Your task to perform on an android device: all mails in gmail Image 0: 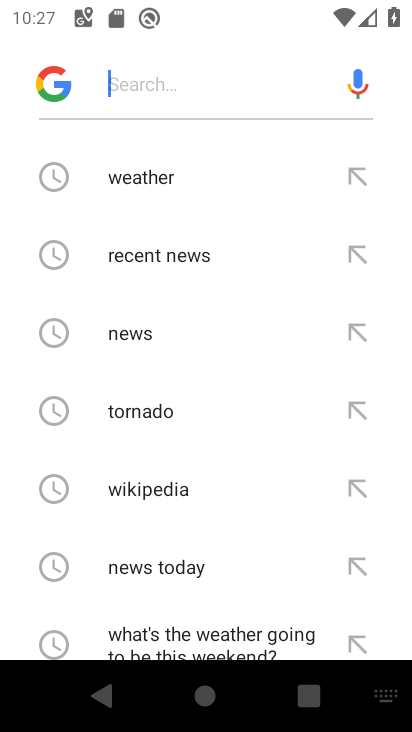
Step 0: press back button
Your task to perform on an android device: all mails in gmail Image 1: 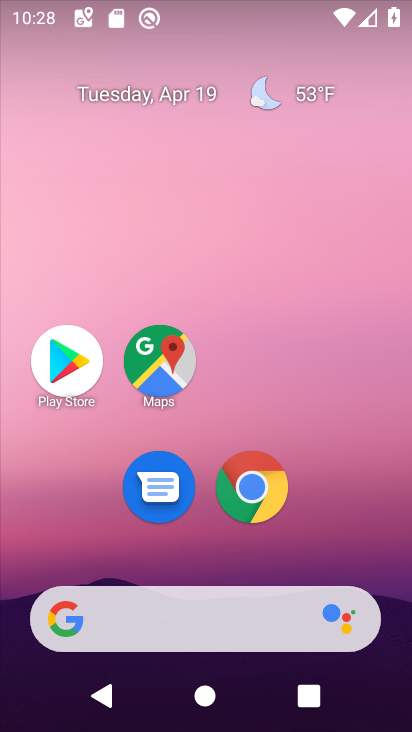
Step 1: drag from (391, 657) to (286, 16)
Your task to perform on an android device: all mails in gmail Image 2: 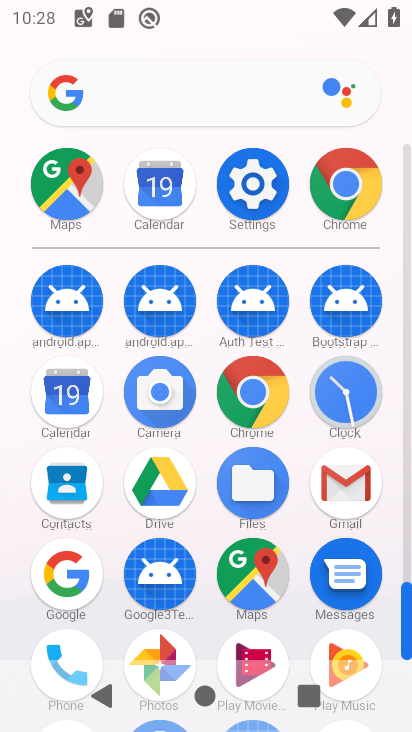
Step 2: drag from (9, 561) to (14, 325)
Your task to perform on an android device: all mails in gmail Image 3: 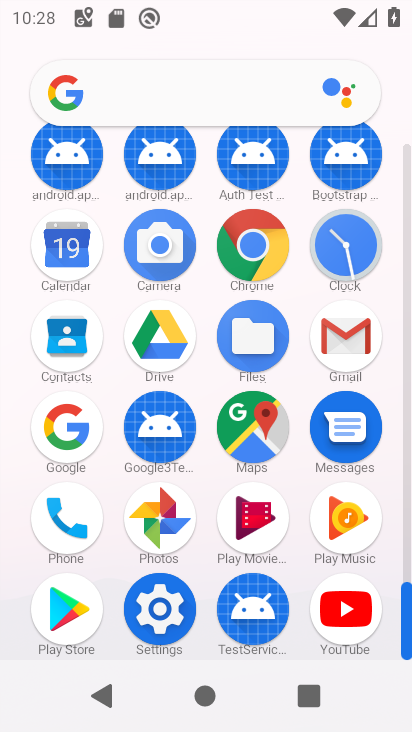
Step 3: click (340, 333)
Your task to perform on an android device: all mails in gmail Image 4: 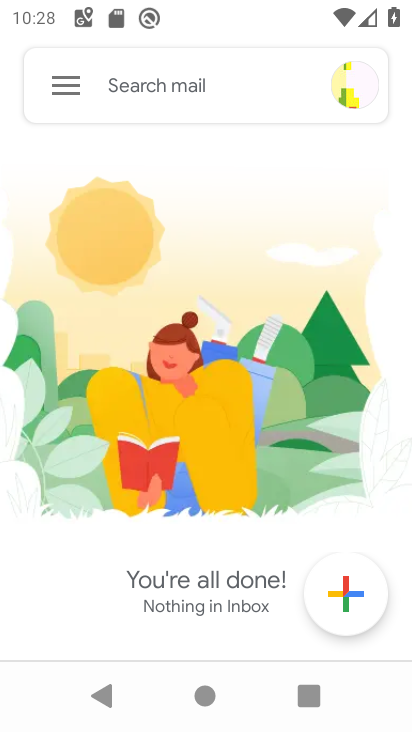
Step 4: click (75, 91)
Your task to perform on an android device: all mails in gmail Image 5: 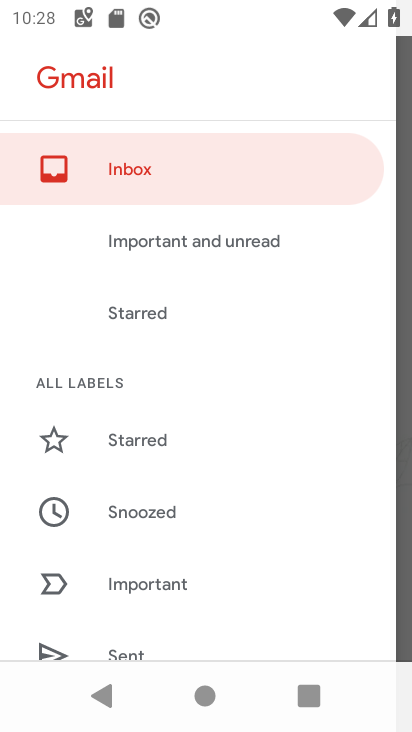
Step 5: drag from (240, 540) to (252, 128)
Your task to perform on an android device: all mails in gmail Image 6: 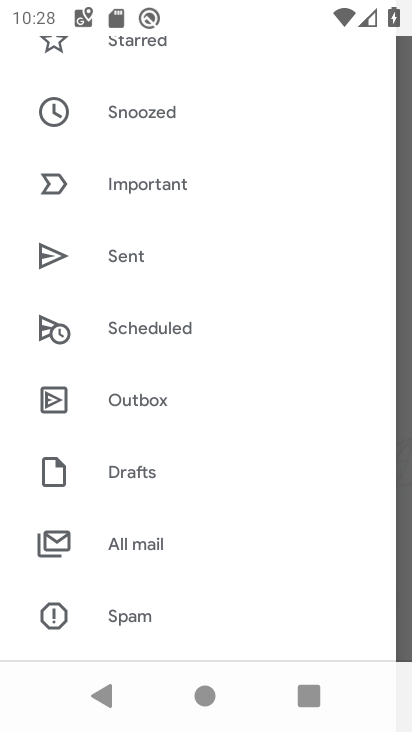
Step 6: click (153, 539)
Your task to perform on an android device: all mails in gmail Image 7: 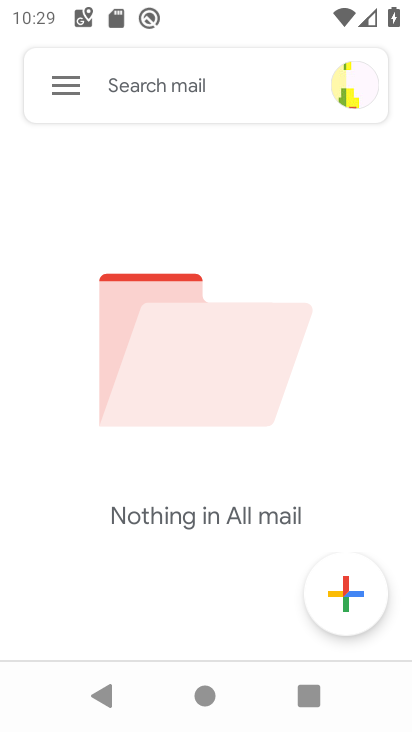
Step 7: task complete